Your task to perform on an android device: set the timer Image 0: 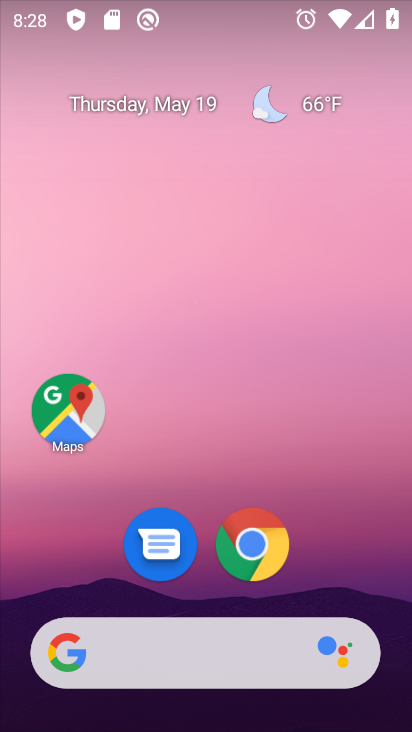
Step 0: drag from (401, 663) to (291, 33)
Your task to perform on an android device: set the timer Image 1: 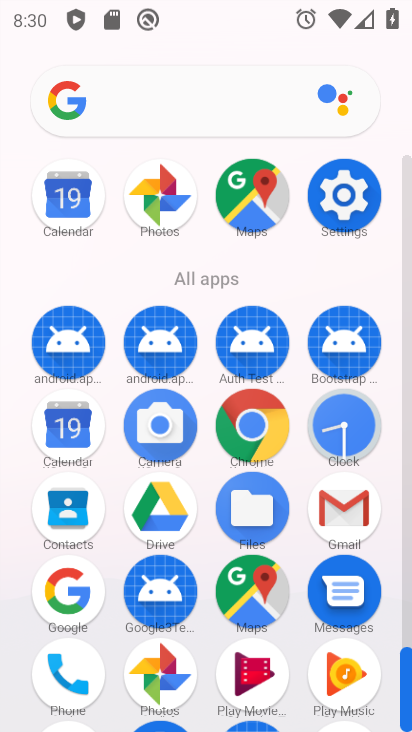
Step 1: click (352, 429)
Your task to perform on an android device: set the timer Image 2: 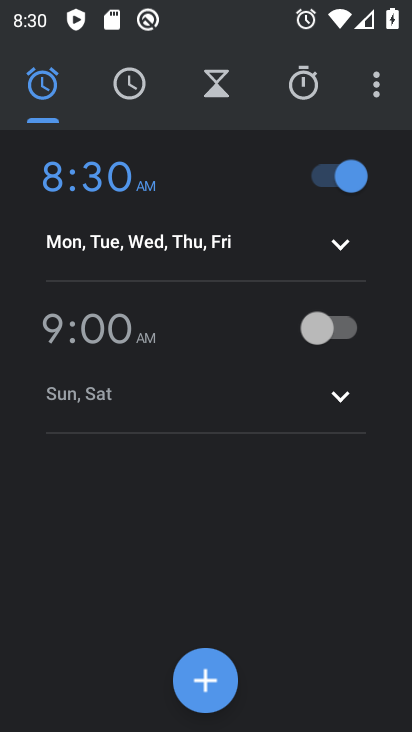
Step 2: click (375, 77)
Your task to perform on an android device: set the timer Image 3: 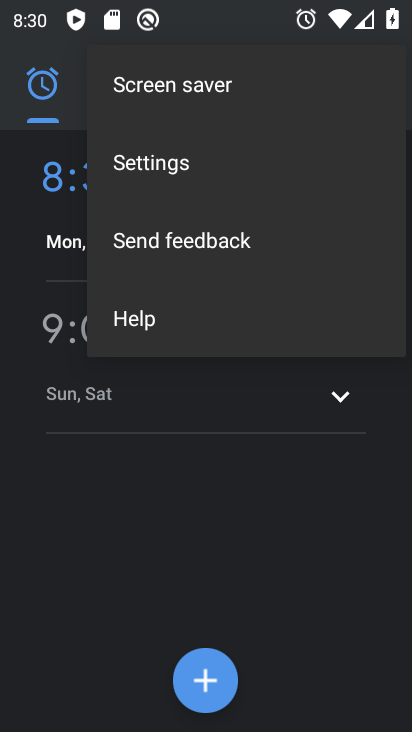
Step 3: click (74, 172)
Your task to perform on an android device: set the timer Image 4: 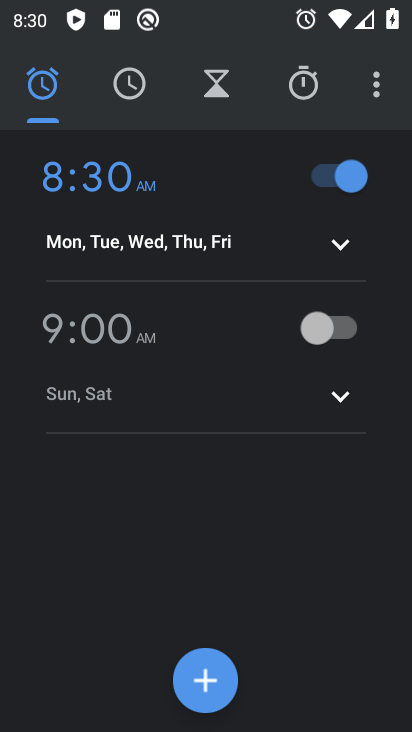
Step 4: click (367, 82)
Your task to perform on an android device: set the timer Image 5: 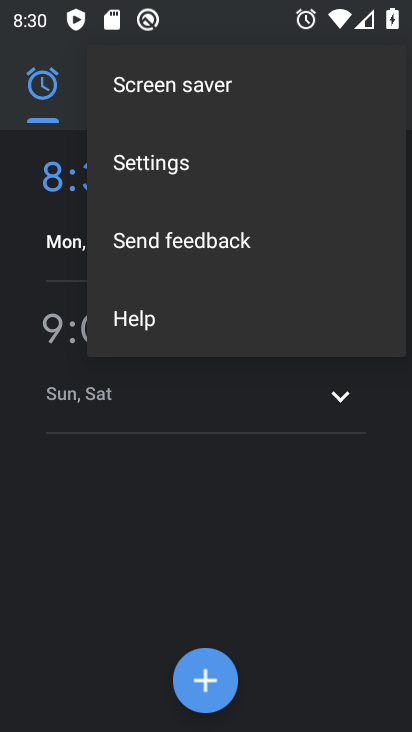
Step 5: click (231, 150)
Your task to perform on an android device: set the timer Image 6: 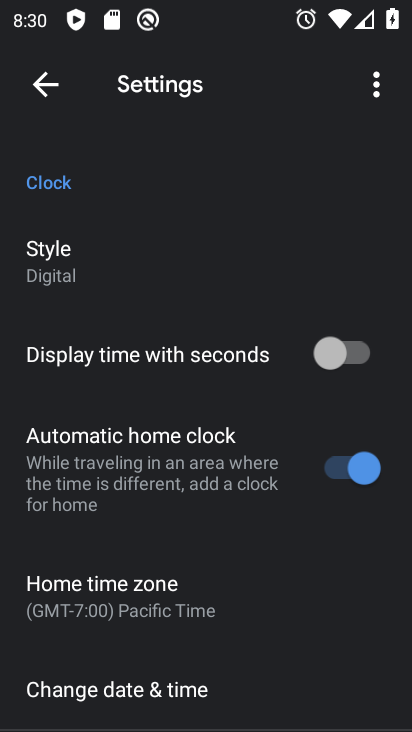
Step 6: click (166, 591)
Your task to perform on an android device: set the timer Image 7: 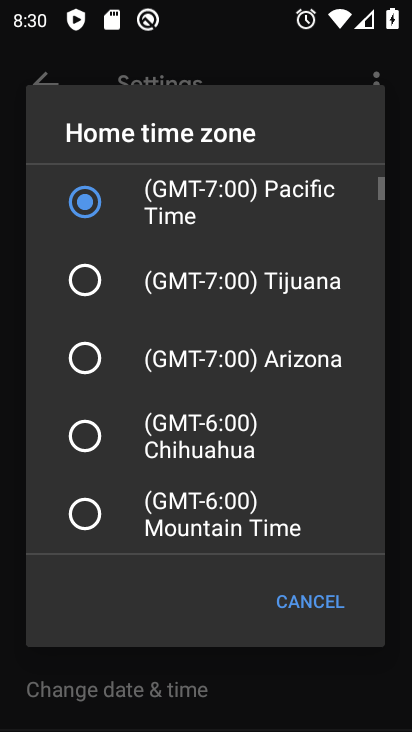
Step 7: click (202, 443)
Your task to perform on an android device: set the timer Image 8: 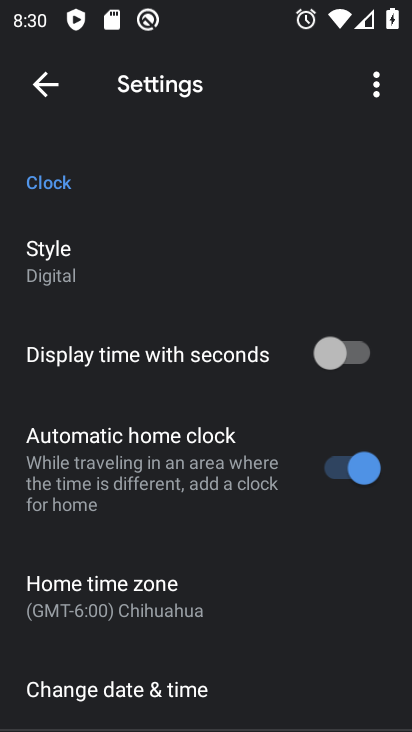
Step 8: task complete